Your task to perform on an android device: open a bookmark in the chrome app Image 0: 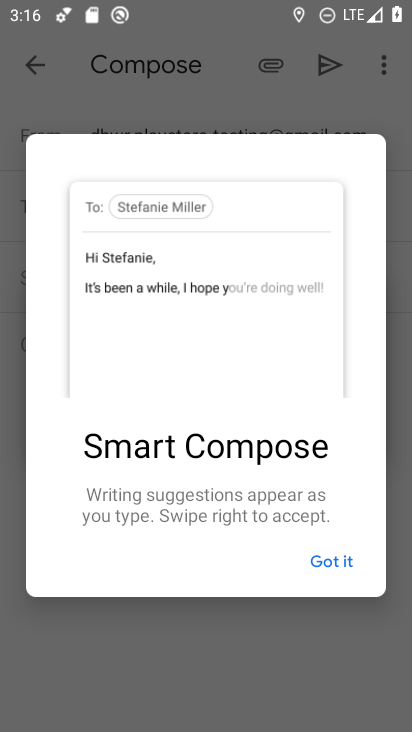
Step 0: press home button
Your task to perform on an android device: open a bookmark in the chrome app Image 1: 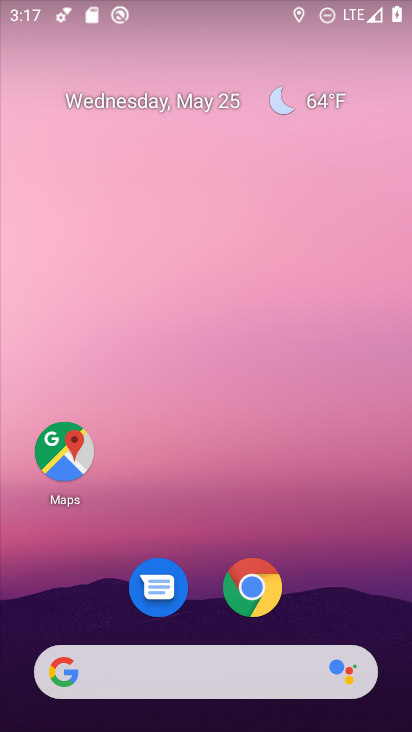
Step 1: click (272, 596)
Your task to perform on an android device: open a bookmark in the chrome app Image 2: 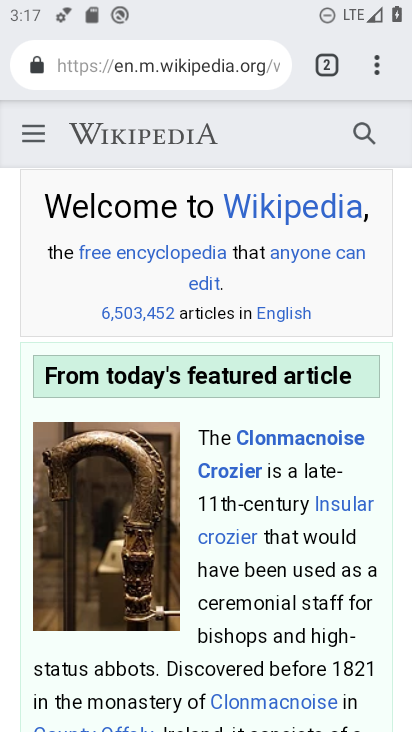
Step 2: click (386, 70)
Your task to perform on an android device: open a bookmark in the chrome app Image 3: 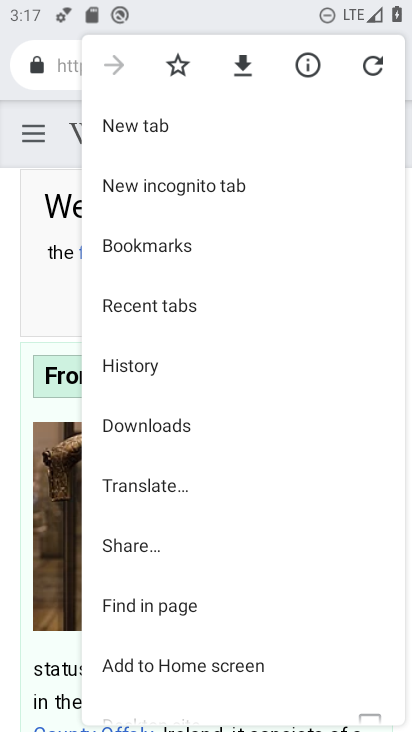
Step 3: click (269, 245)
Your task to perform on an android device: open a bookmark in the chrome app Image 4: 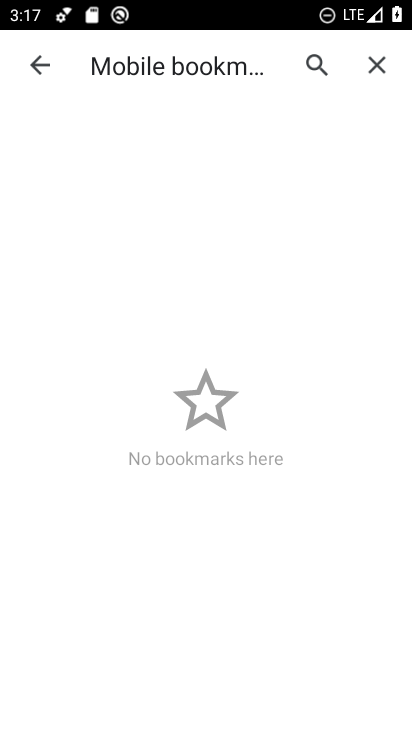
Step 4: task complete